Your task to perform on an android device: Go to wifi settings Image 0: 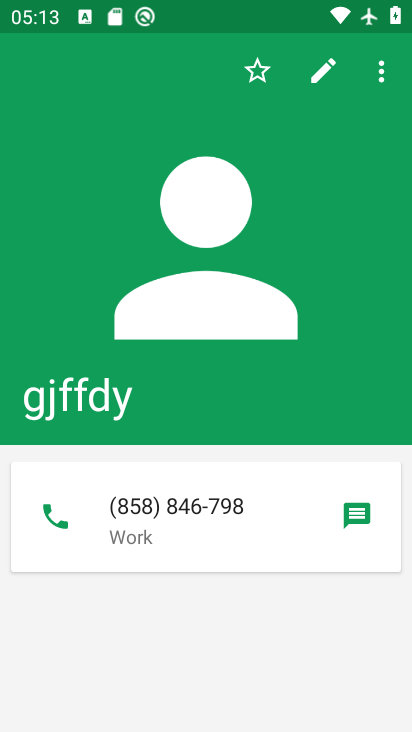
Step 0: press home button
Your task to perform on an android device: Go to wifi settings Image 1: 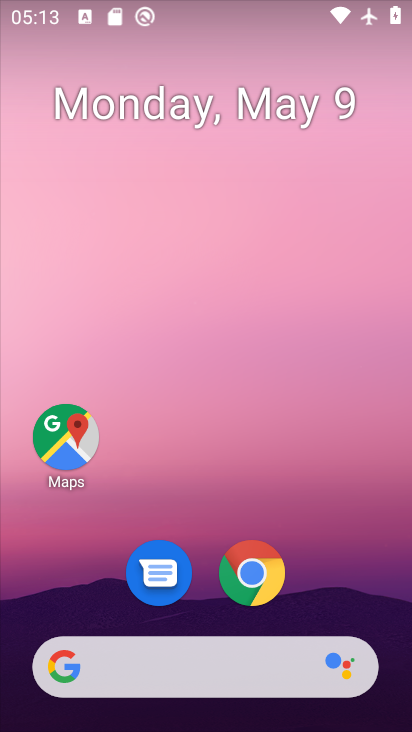
Step 1: drag from (391, 636) to (307, 68)
Your task to perform on an android device: Go to wifi settings Image 2: 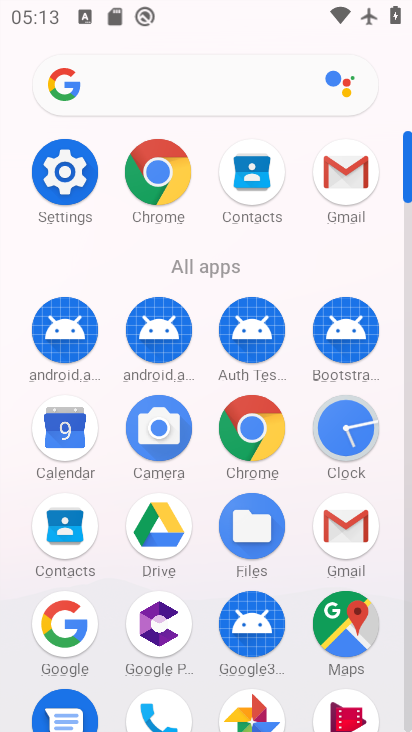
Step 2: click (406, 698)
Your task to perform on an android device: Go to wifi settings Image 3: 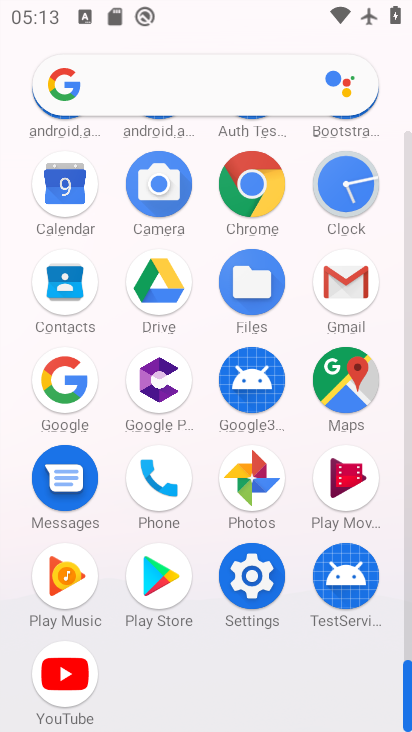
Step 3: click (249, 576)
Your task to perform on an android device: Go to wifi settings Image 4: 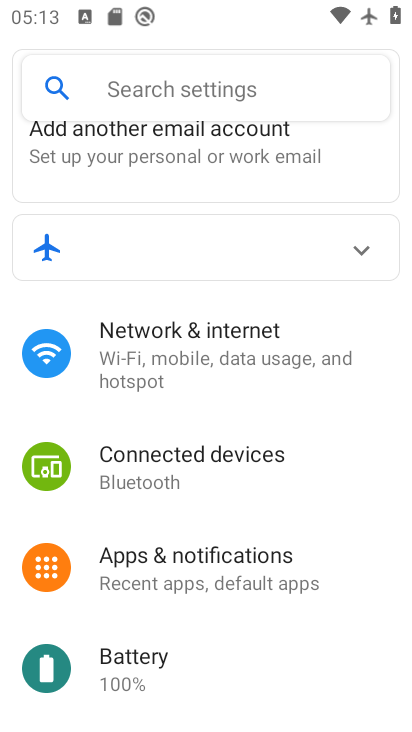
Step 4: click (151, 351)
Your task to perform on an android device: Go to wifi settings Image 5: 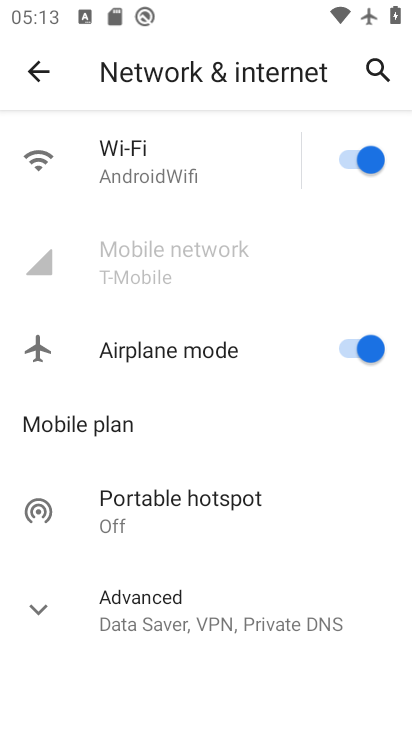
Step 5: click (92, 153)
Your task to perform on an android device: Go to wifi settings Image 6: 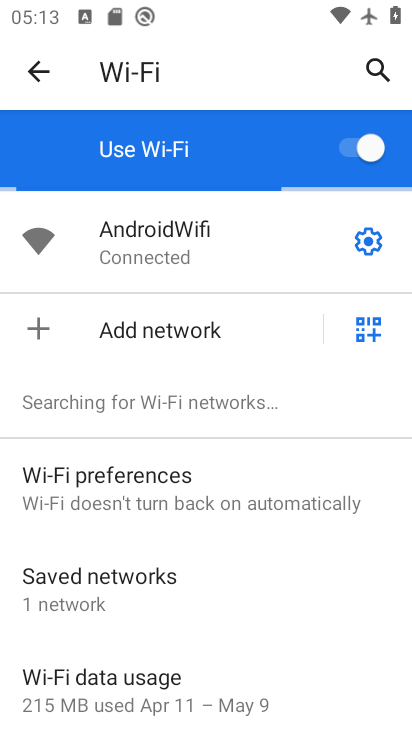
Step 6: drag from (208, 661) to (241, 288)
Your task to perform on an android device: Go to wifi settings Image 7: 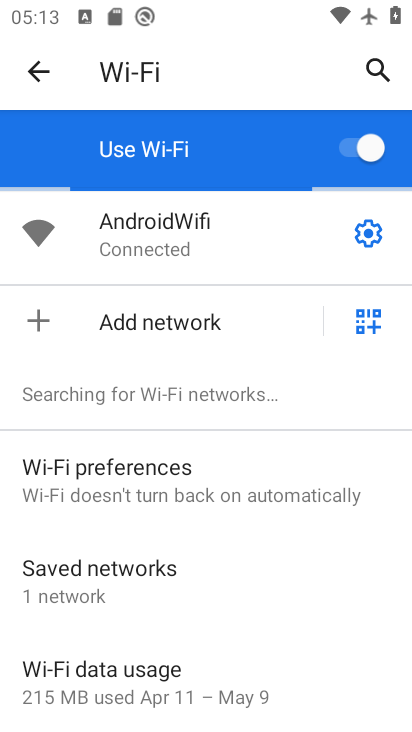
Step 7: click (367, 232)
Your task to perform on an android device: Go to wifi settings Image 8: 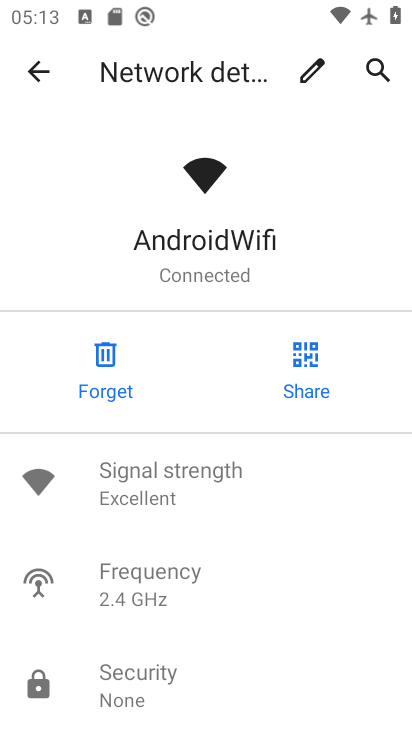
Step 8: drag from (206, 647) to (188, 249)
Your task to perform on an android device: Go to wifi settings Image 9: 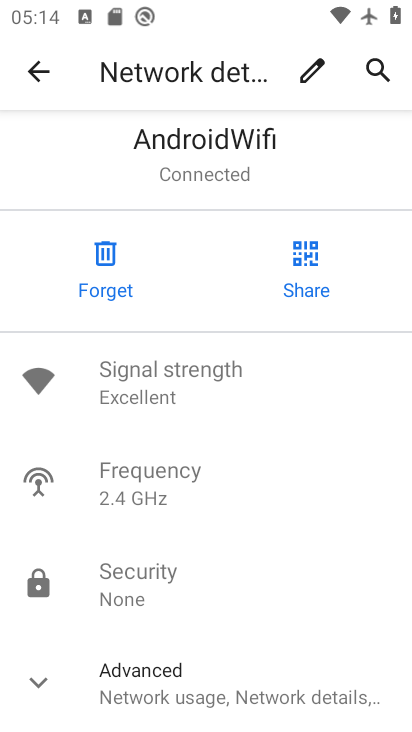
Step 9: click (34, 687)
Your task to perform on an android device: Go to wifi settings Image 10: 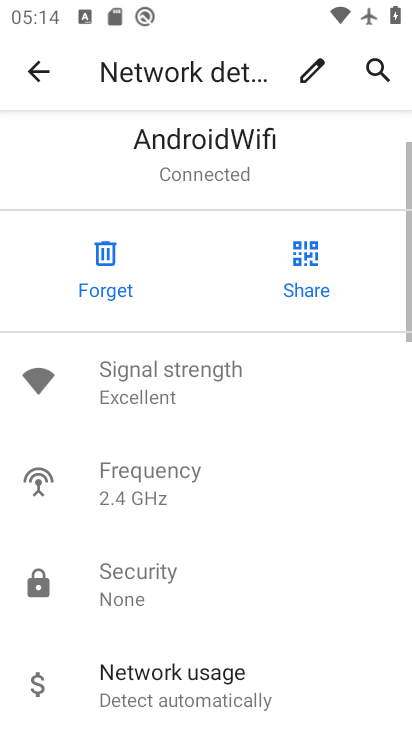
Step 10: task complete